Your task to perform on an android device: move an email to a new category in the gmail app Image 0: 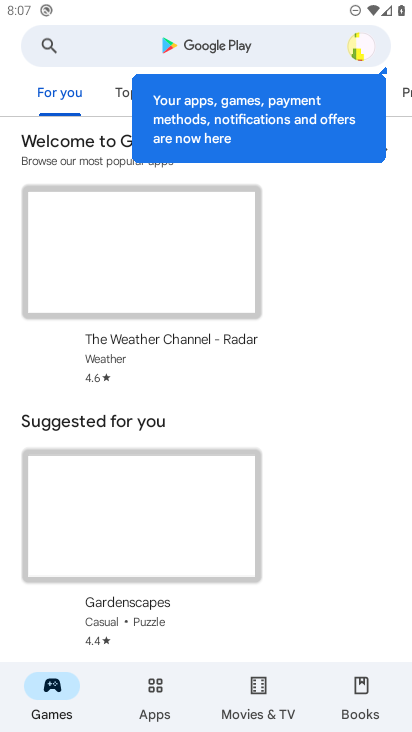
Step 0: press home button
Your task to perform on an android device: move an email to a new category in the gmail app Image 1: 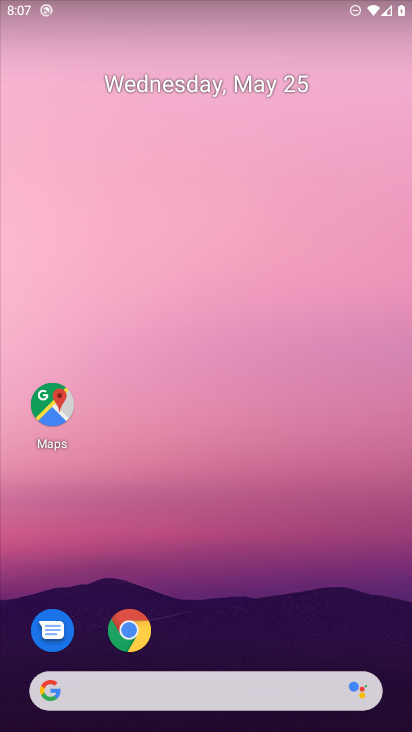
Step 1: drag from (212, 644) to (288, 253)
Your task to perform on an android device: move an email to a new category in the gmail app Image 2: 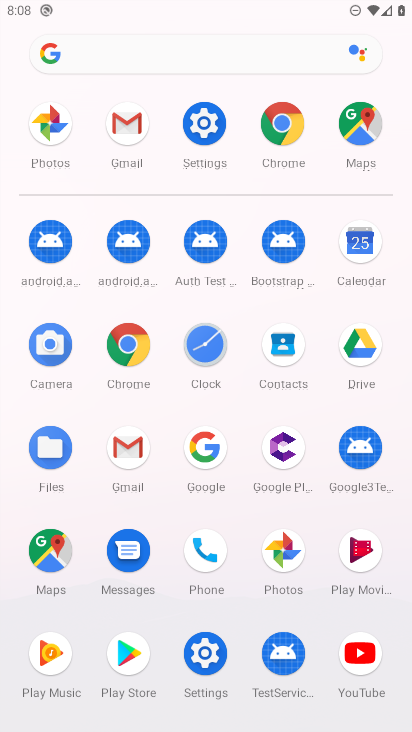
Step 2: click (137, 447)
Your task to perform on an android device: move an email to a new category in the gmail app Image 3: 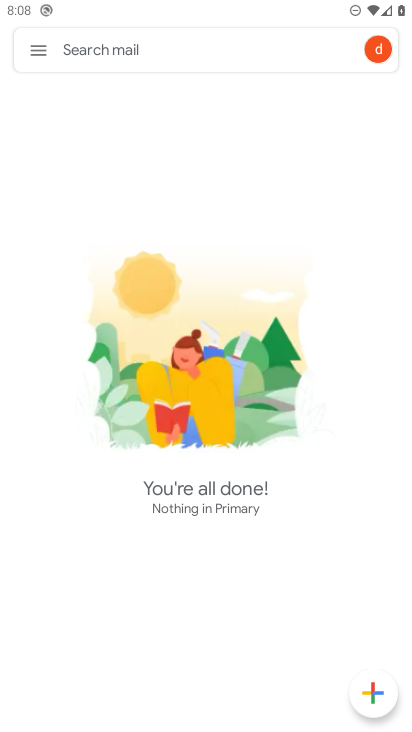
Step 3: click (43, 55)
Your task to perform on an android device: move an email to a new category in the gmail app Image 4: 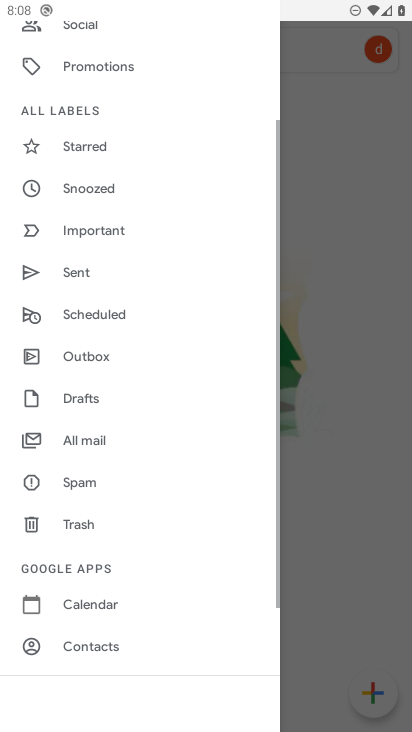
Step 4: click (106, 573)
Your task to perform on an android device: move an email to a new category in the gmail app Image 5: 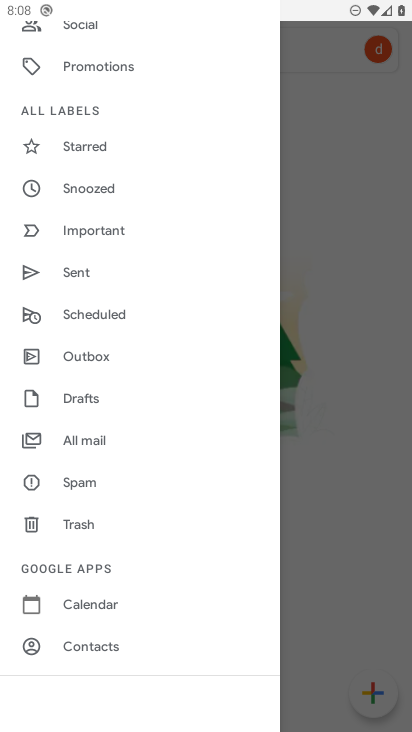
Step 5: drag from (139, 57) to (181, 572)
Your task to perform on an android device: move an email to a new category in the gmail app Image 6: 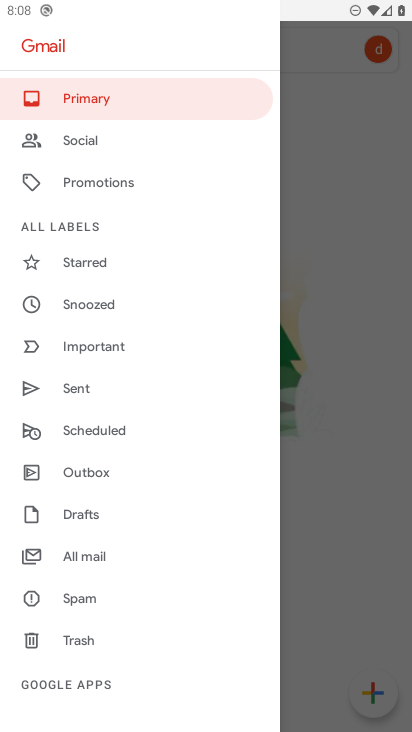
Step 6: click (80, 95)
Your task to perform on an android device: move an email to a new category in the gmail app Image 7: 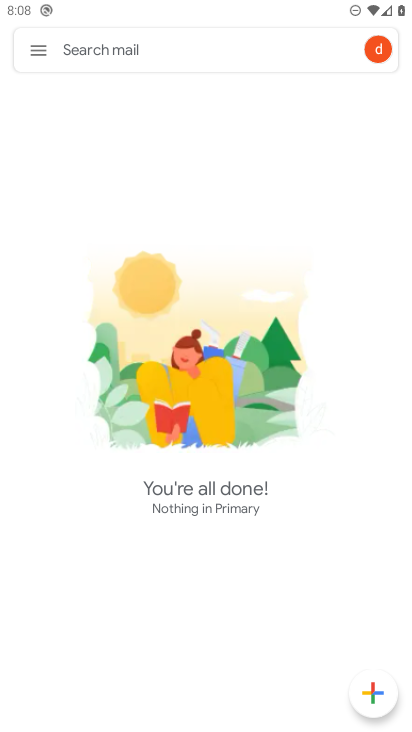
Step 7: task complete